Your task to perform on an android device: find photos in the google photos app Image 0: 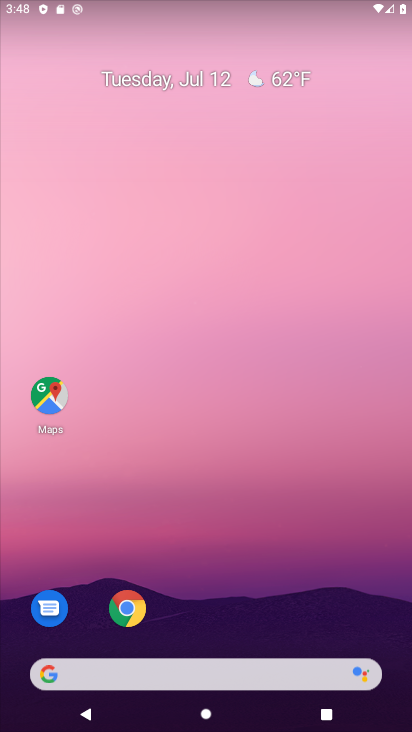
Step 0: drag from (191, 665) to (304, 34)
Your task to perform on an android device: find photos in the google photos app Image 1: 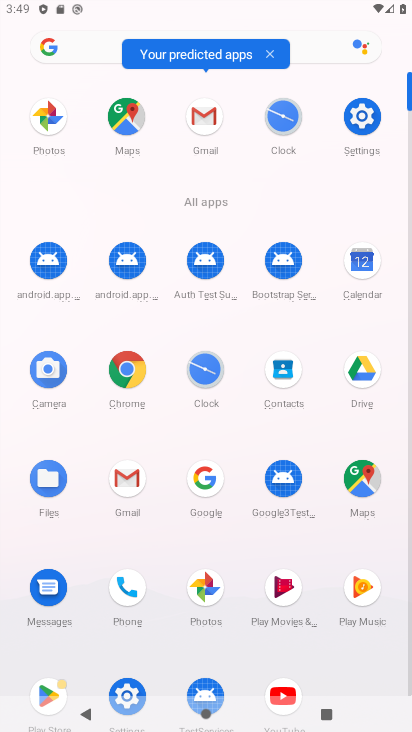
Step 1: click (205, 603)
Your task to perform on an android device: find photos in the google photos app Image 2: 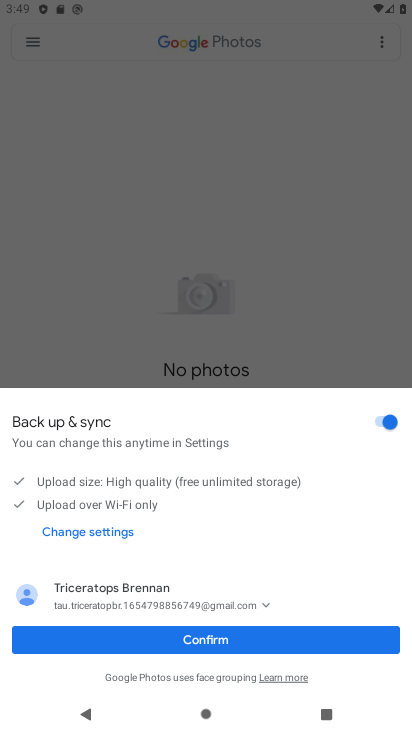
Step 2: click (224, 637)
Your task to perform on an android device: find photos in the google photos app Image 3: 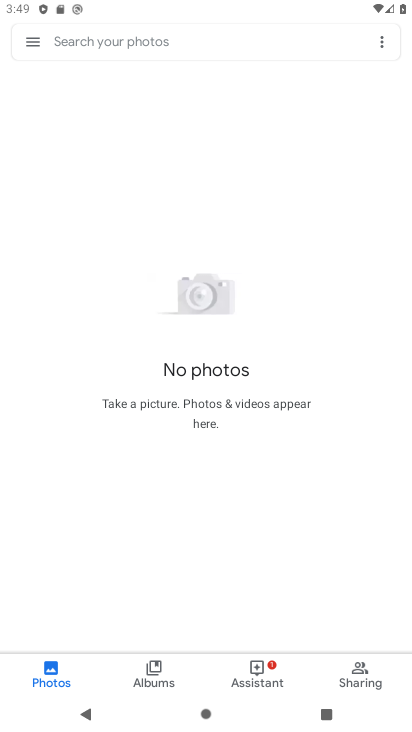
Step 3: task complete